Your task to perform on an android device: Search for vegetarian restaurants on Maps Image 0: 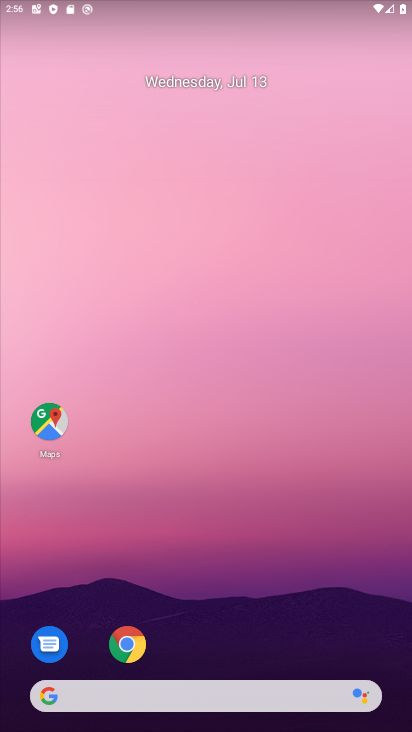
Step 0: drag from (353, 625) to (346, 19)
Your task to perform on an android device: Search for vegetarian restaurants on Maps Image 1: 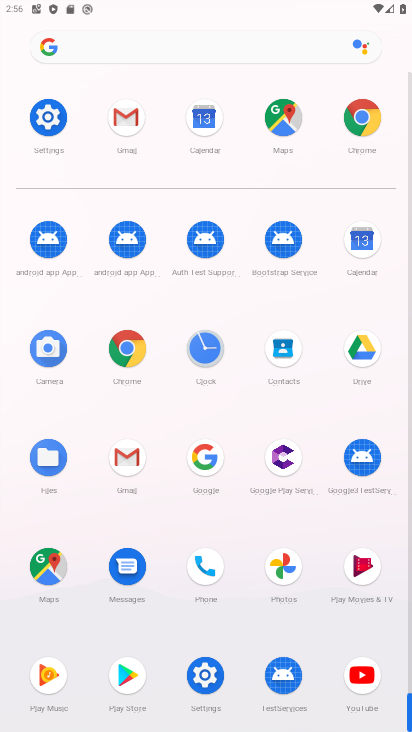
Step 1: click (287, 120)
Your task to perform on an android device: Search for vegetarian restaurants on Maps Image 2: 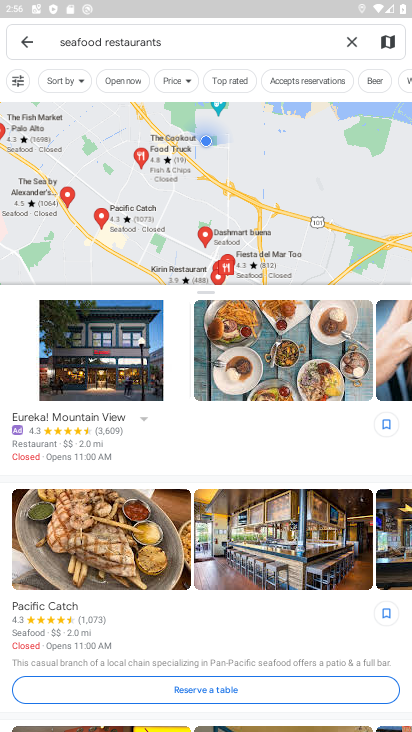
Step 2: click (358, 38)
Your task to perform on an android device: Search for vegetarian restaurants on Maps Image 3: 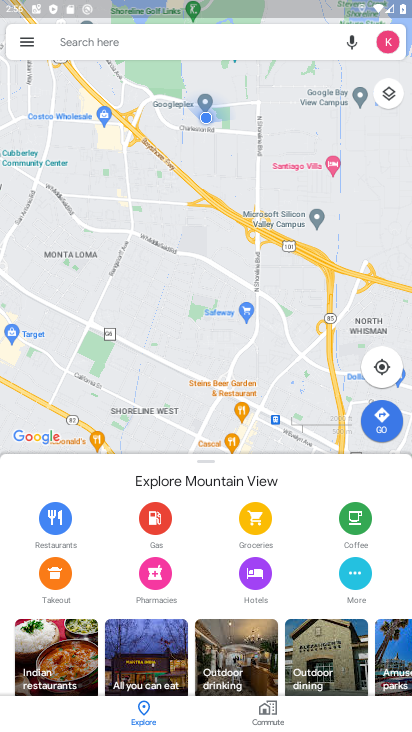
Step 3: click (137, 39)
Your task to perform on an android device: Search for vegetarian restaurants on Maps Image 4: 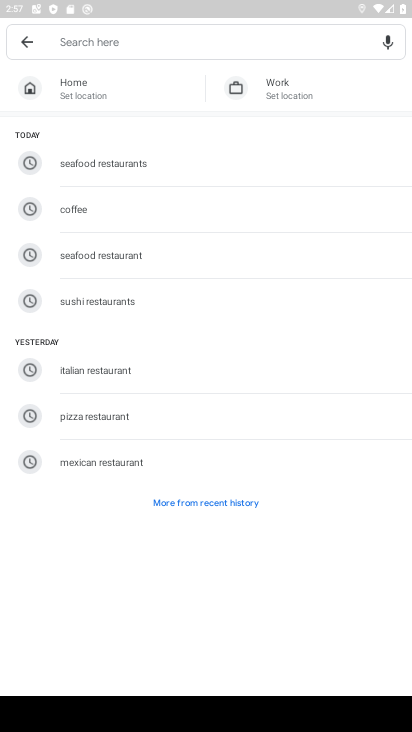
Step 4: type "vegetarian restaurants"
Your task to perform on an android device: Search for vegetarian restaurants on Maps Image 5: 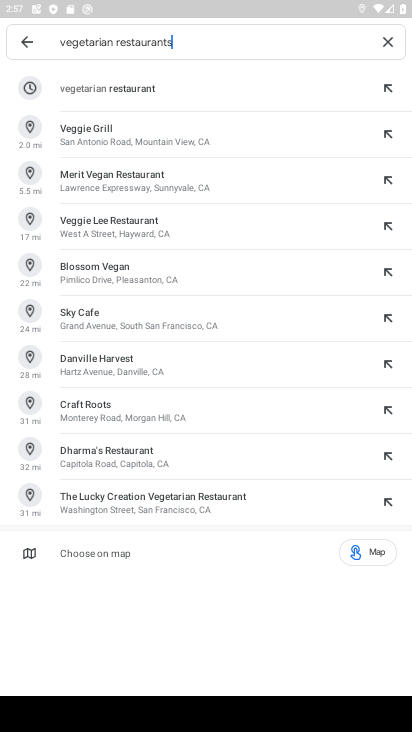
Step 5: press enter
Your task to perform on an android device: Search for vegetarian restaurants on Maps Image 6: 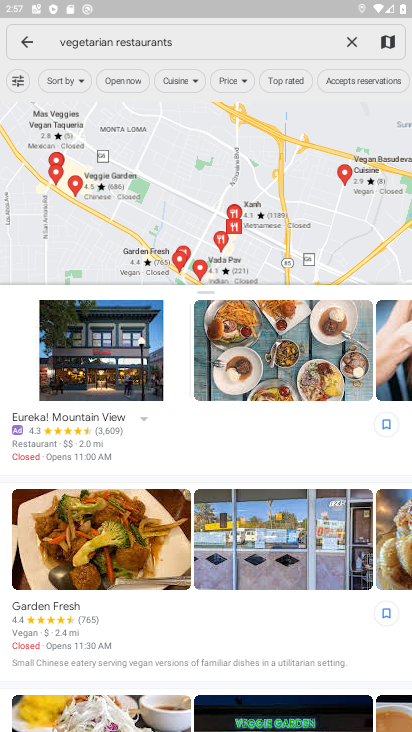
Step 6: task complete